Your task to perform on an android device: Open the Play Movies app and select the watchlist tab. Image 0: 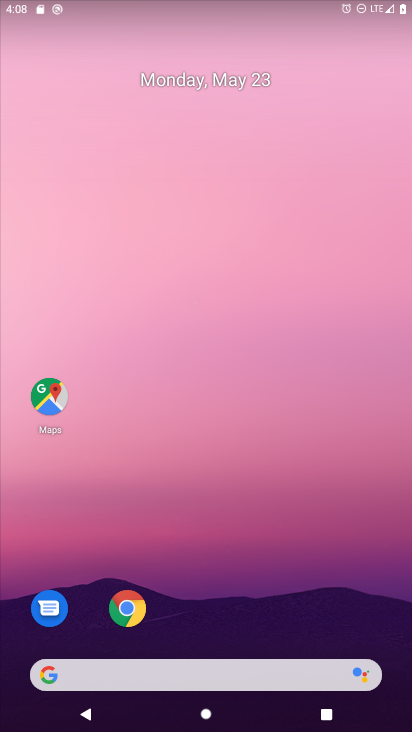
Step 0: drag from (225, 600) to (178, 91)
Your task to perform on an android device: Open the Play Movies app and select the watchlist tab. Image 1: 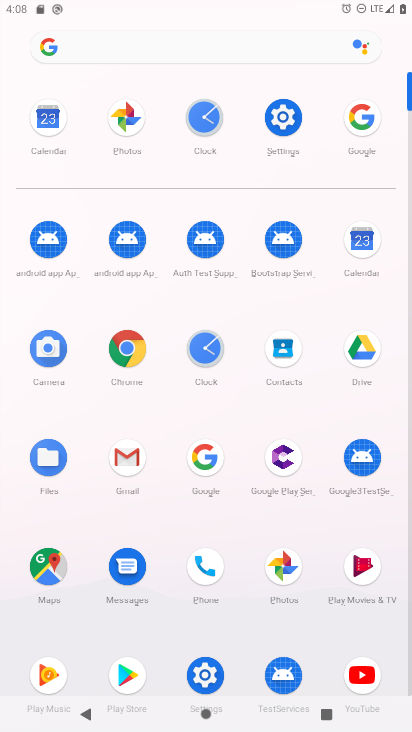
Step 1: drag from (235, 538) to (245, 432)
Your task to perform on an android device: Open the Play Movies app and select the watchlist tab. Image 2: 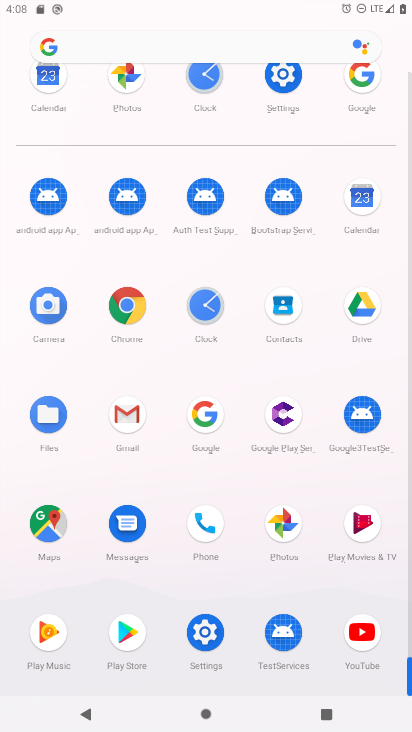
Step 2: click (365, 521)
Your task to perform on an android device: Open the Play Movies app and select the watchlist tab. Image 3: 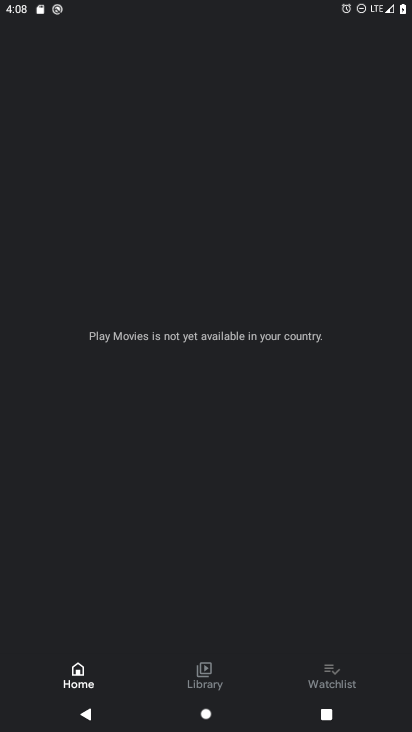
Step 3: click (336, 671)
Your task to perform on an android device: Open the Play Movies app and select the watchlist tab. Image 4: 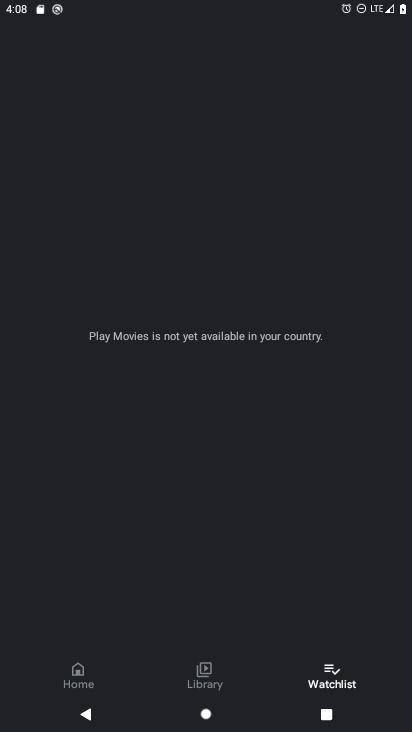
Step 4: task complete